Your task to perform on an android device: toggle notification dots Image 0: 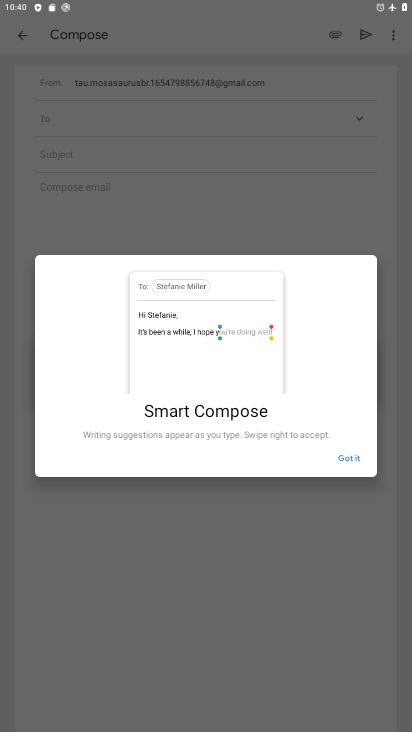
Step 0: press home button
Your task to perform on an android device: toggle notification dots Image 1: 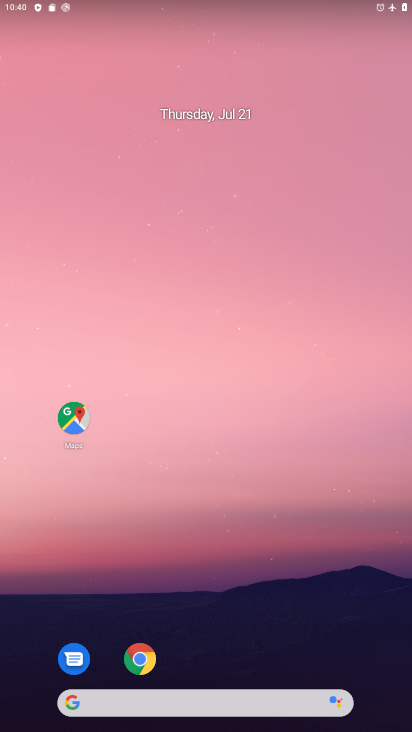
Step 1: drag from (268, 605) to (227, 121)
Your task to perform on an android device: toggle notification dots Image 2: 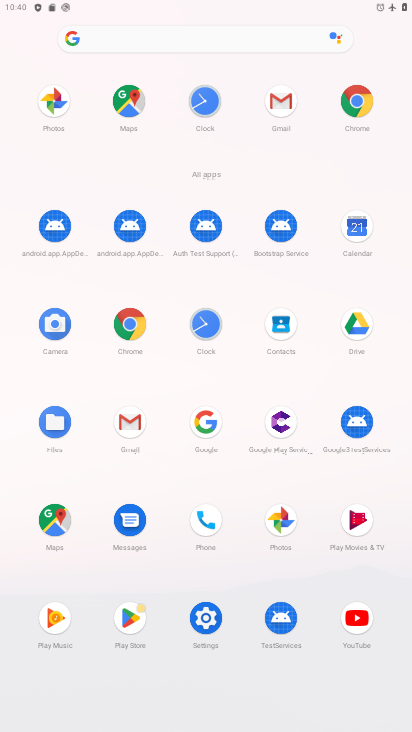
Step 2: click (201, 619)
Your task to perform on an android device: toggle notification dots Image 3: 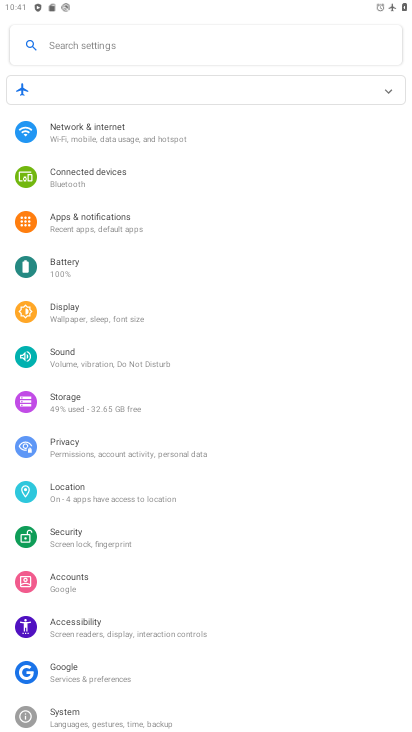
Step 3: click (175, 232)
Your task to perform on an android device: toggle notification dots Image 4: 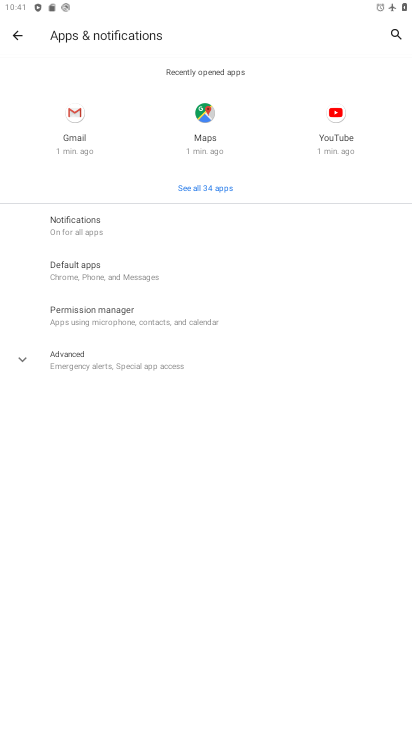
Step 4: click (181, 360)
Your task to perform on an android device: toggle notification dots Image 5: 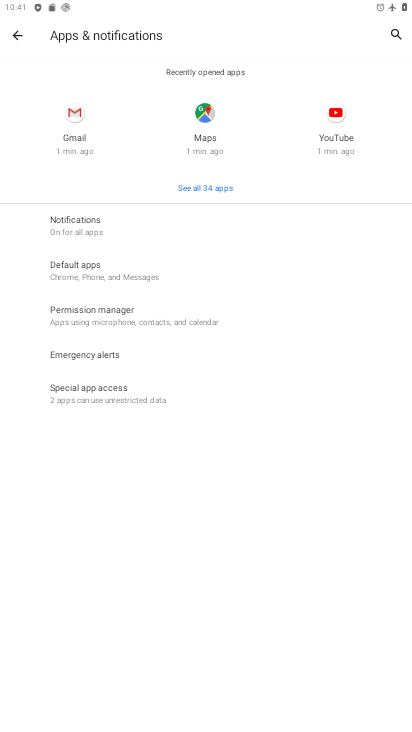
Step 5: click (179, 226)
Your task to perform on an android device: toggle notification dots Image 6: 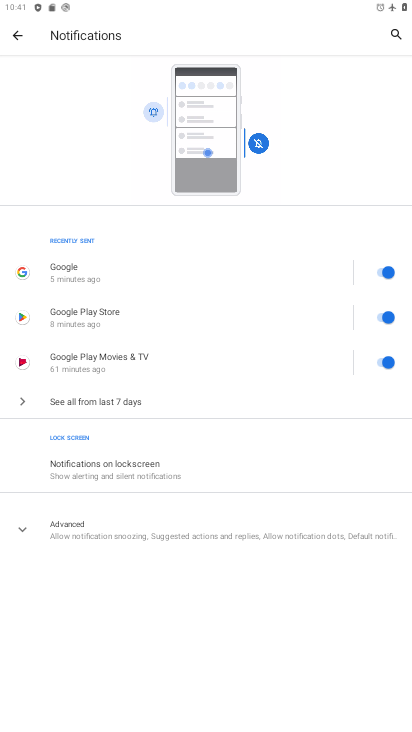
Step 6: click (138, 534)
Your task to perform on an android device: toggle notification dots Image 7: 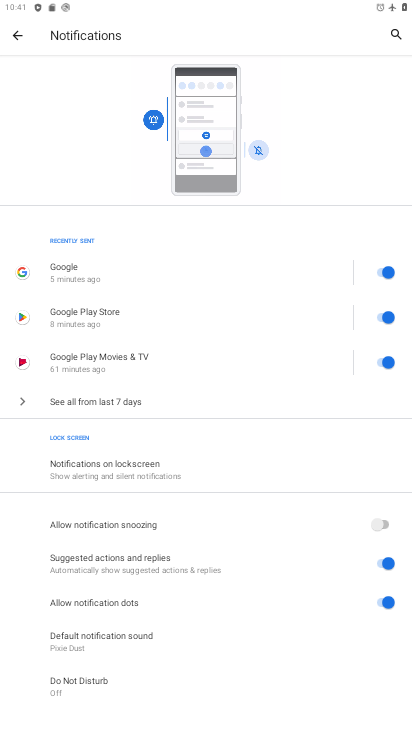
Step 7: click (388, 603)
Your task to perform on an android device: toggle notification dots Image 8: 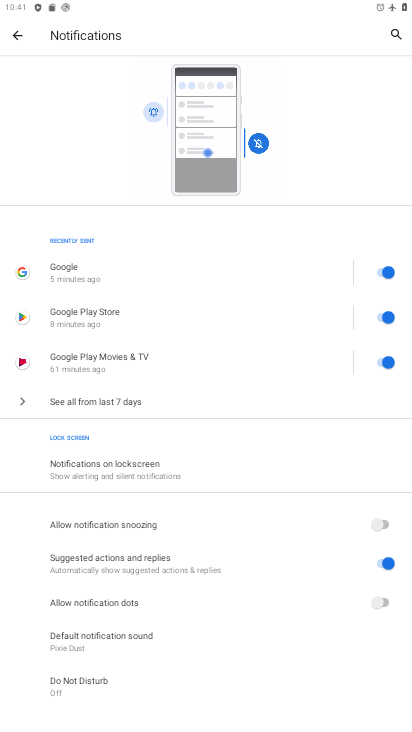
Step 8: task complete